Your task to perform on an android device: Open wifi settings Image 0: 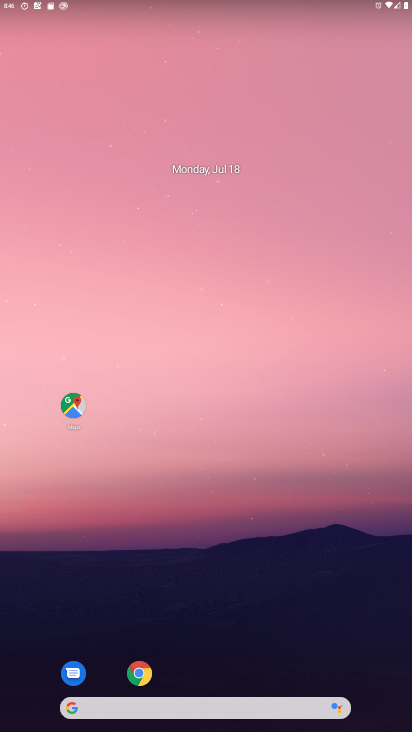
Step 0: drag from (190, 434) to (163, 146)
Your task to perform on an android device: Open wifi settings Image 1: 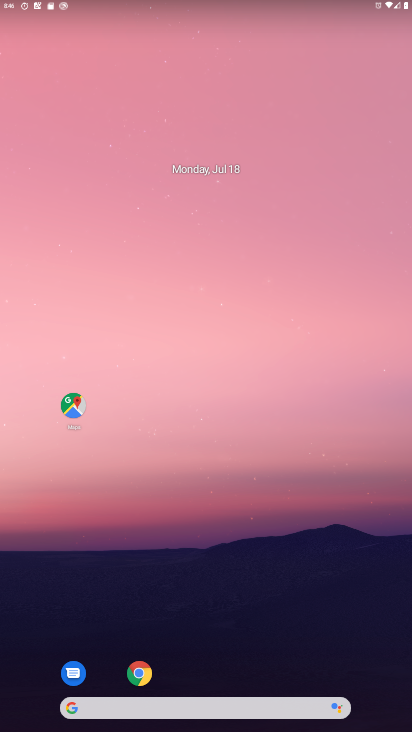
Step 1: drag from (208, 660) to (261, 184)
Your task to perform on an android device: Open wifi settings Image 2: 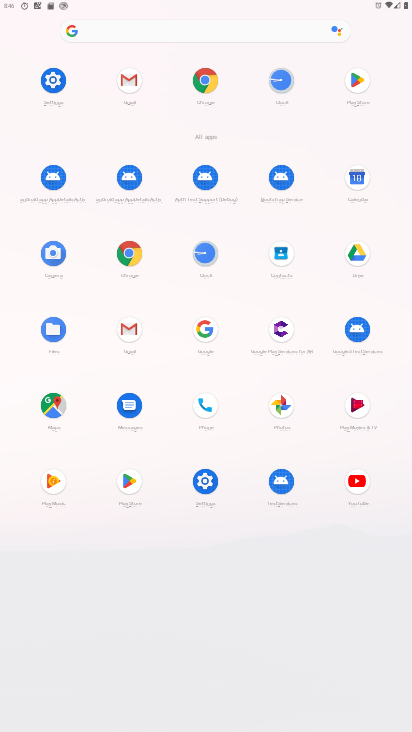
Step 2: click (204, 488)
Your task to perform on an android device: Open wifi settings Image 3: 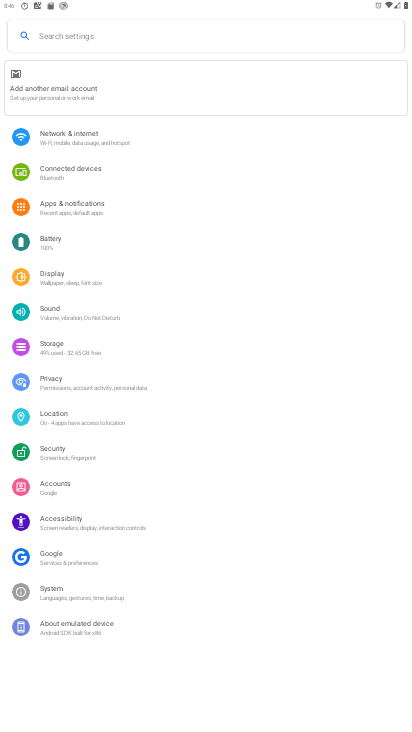
Step 3: click (54, 130)
Your task to perform on an android device: Open wifi settings Image 4: 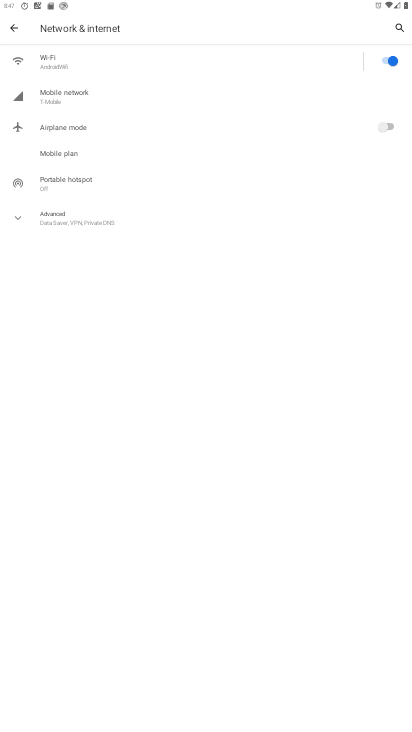
Step 4: click (54, 130)
Your task to perform on an android device: Open wifi settings Image 5: 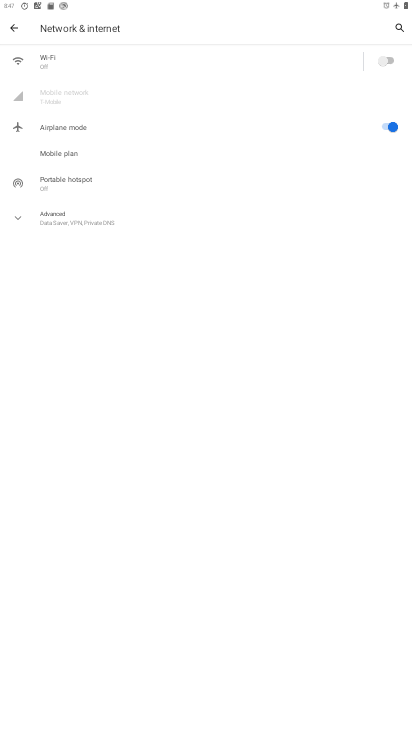
Step 5: click (90, 49)
Your task to perform on an android device: Open wifi settings Image 6: 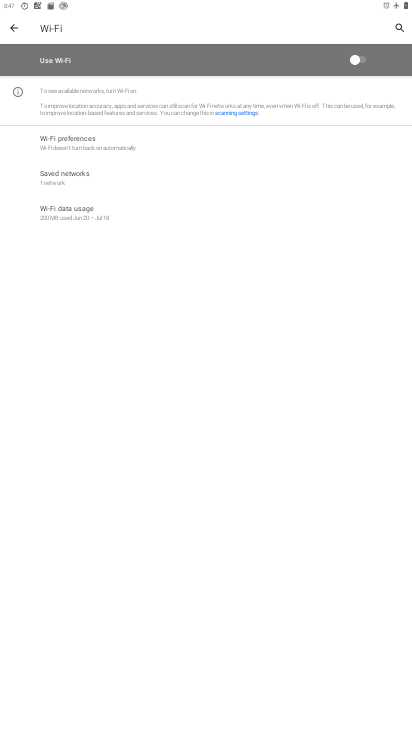
Step 6: task complete